Your task to perform on an android device: add a contact in the contacts app Image 0: 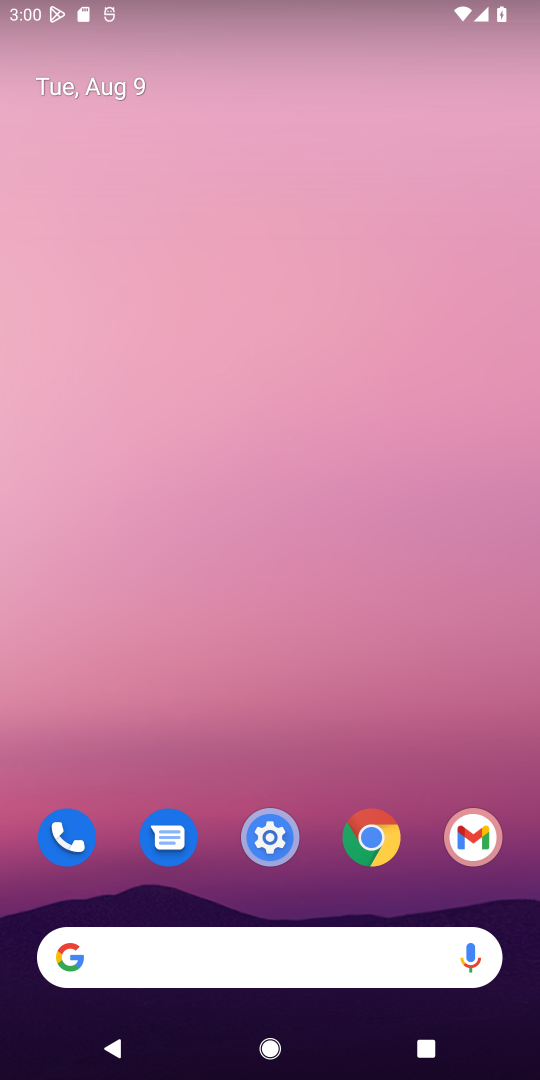
Step 0: drag from (236, 837) to (239, 187)
Your task to perform on an android device: add a contact in the contacts app Image 1: 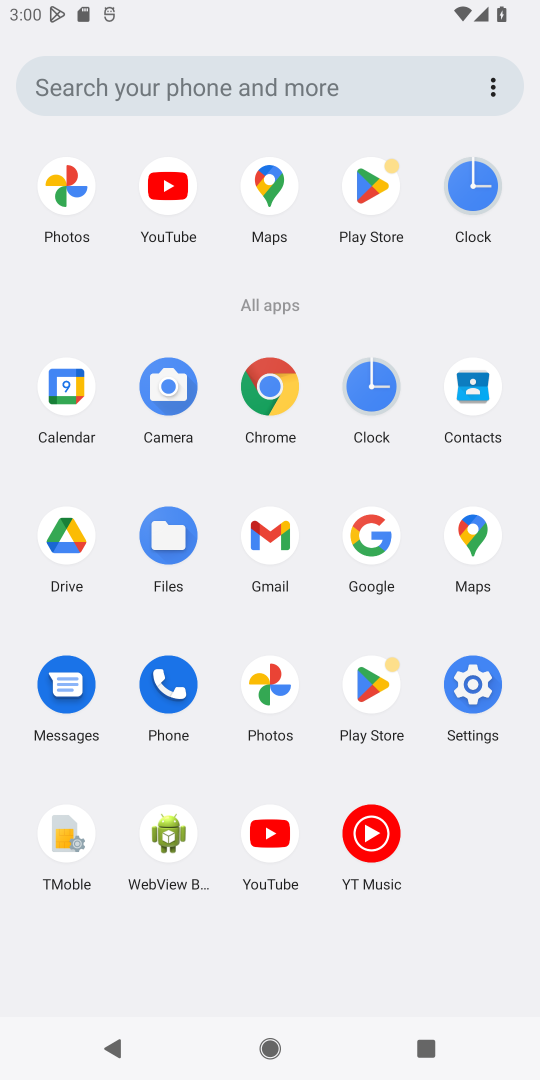
Step 1: click (155, 656)
Your task to perform on an android device: add a contact in the contacts app Image 2: 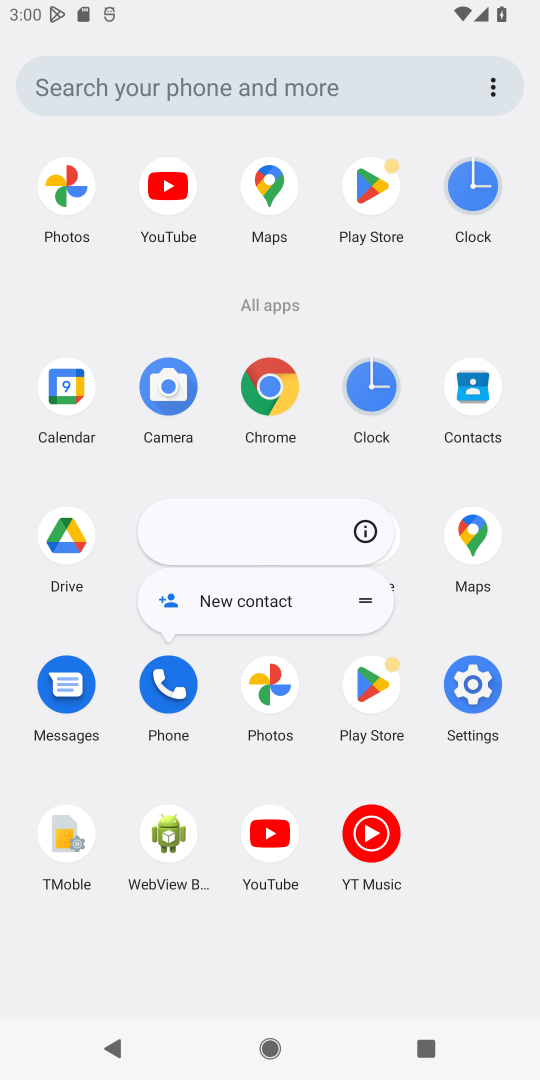
Step 2: click (152, 677)
Your task to perform on an android device: add a contact in the contacts app Image 3: 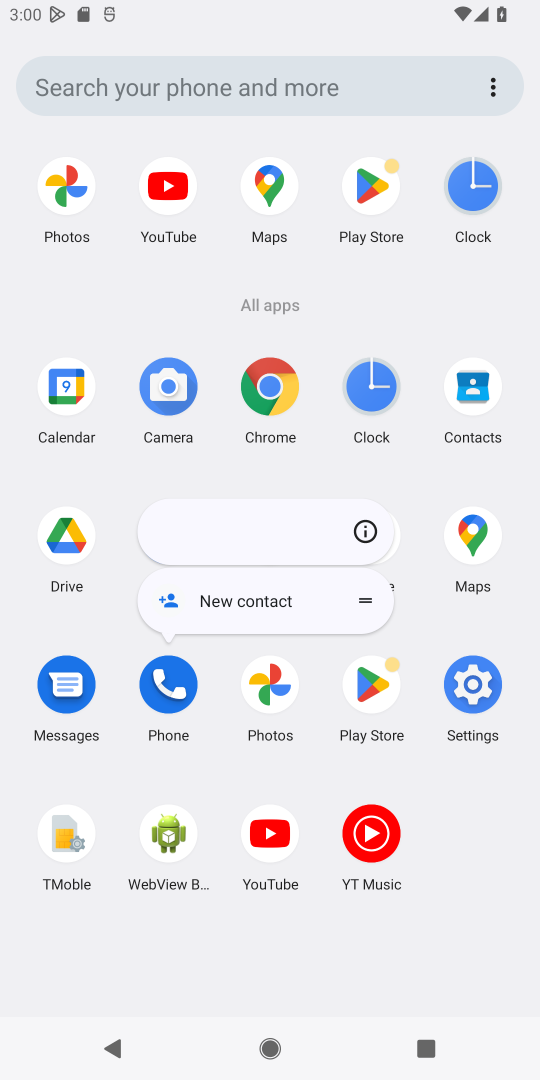
Step 3: click (154, 677)
Your task to perform on an android device: add a contact in the contacts app Image 4: 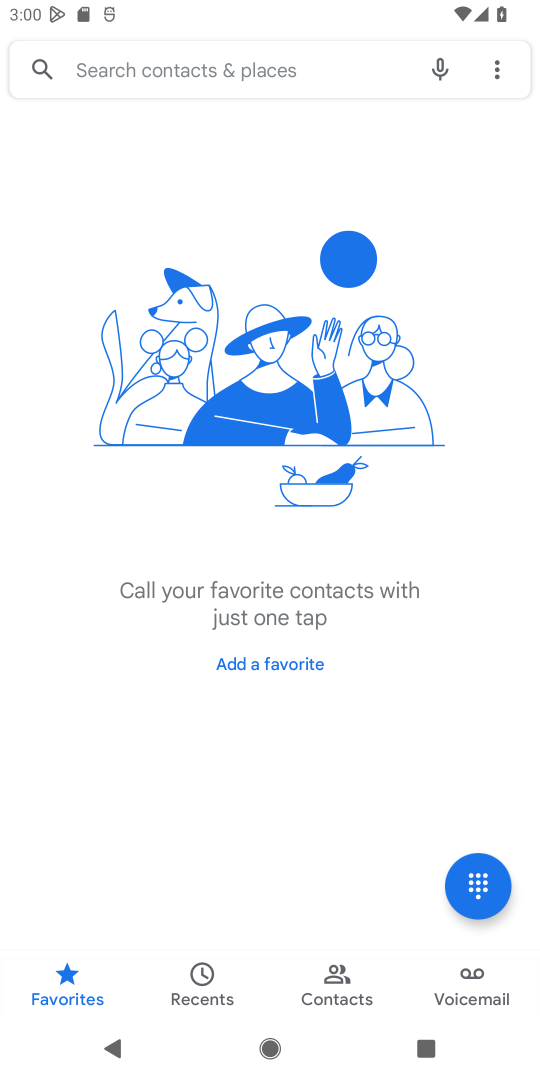
Step 4: click (458, 886)
Your task to perform on an android device: add a contact in the contacts app Image 5: 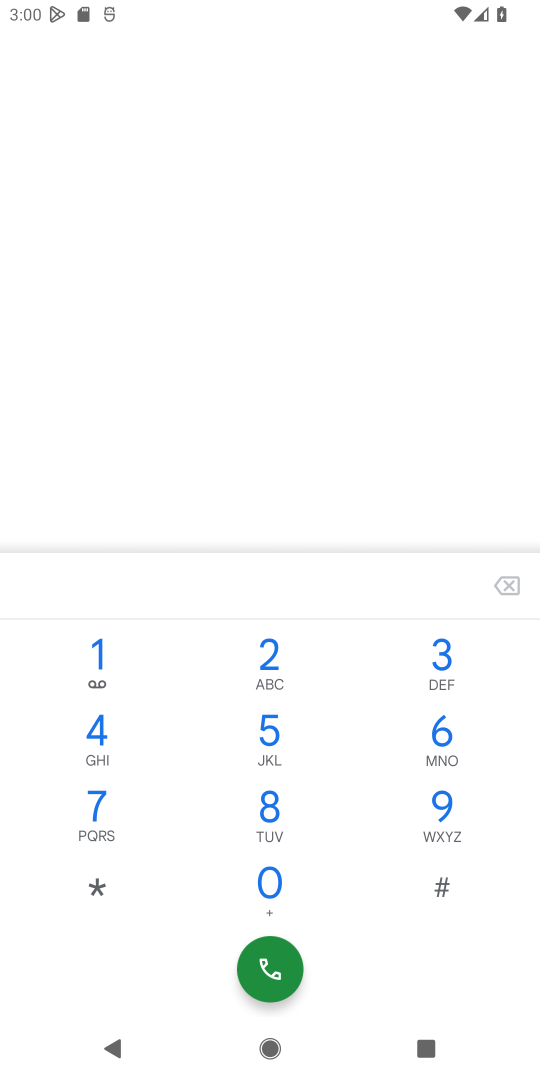
Step 5: click (102, 1044)
Your task to perform on an android device: add a contact in the contacts app Image 6: 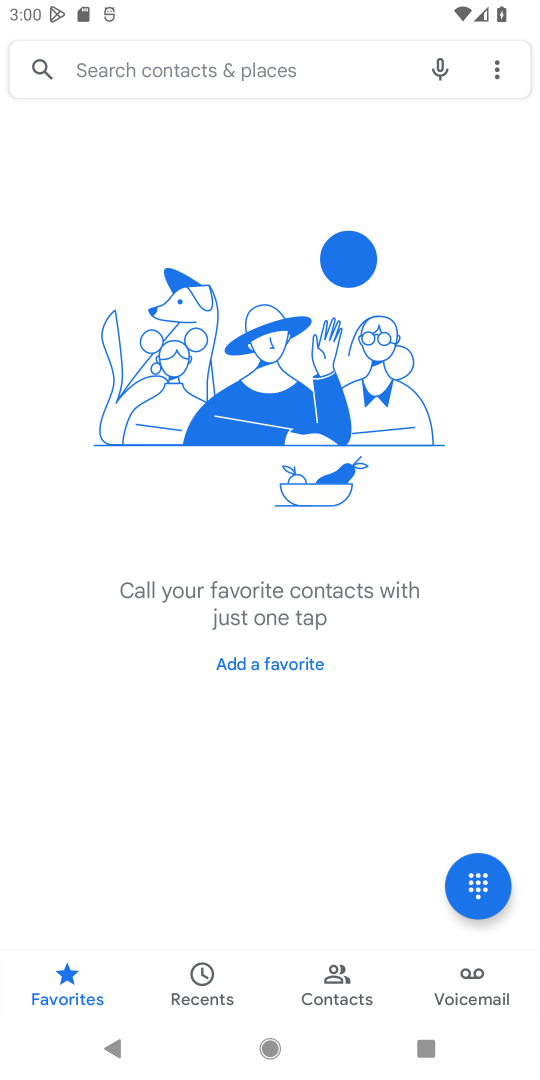
Step 6: click (277, 662)
Your task to perform on an android device: add a contact in the contacts app Image 7: 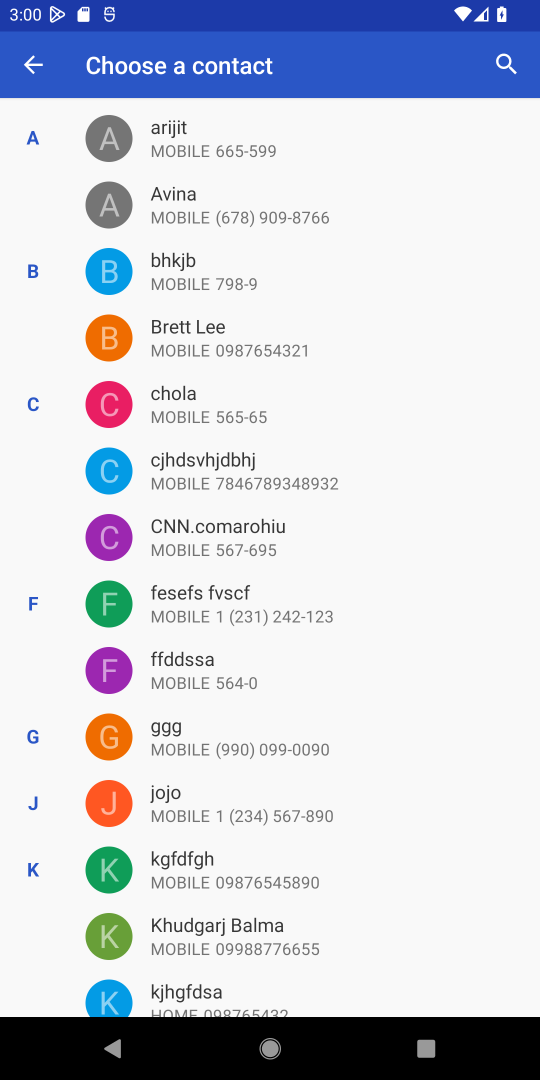
Step 7: drag from (272, 203) to (254, 832)
Your task to perform on an android device: add a contact in the contacts app Image 8: 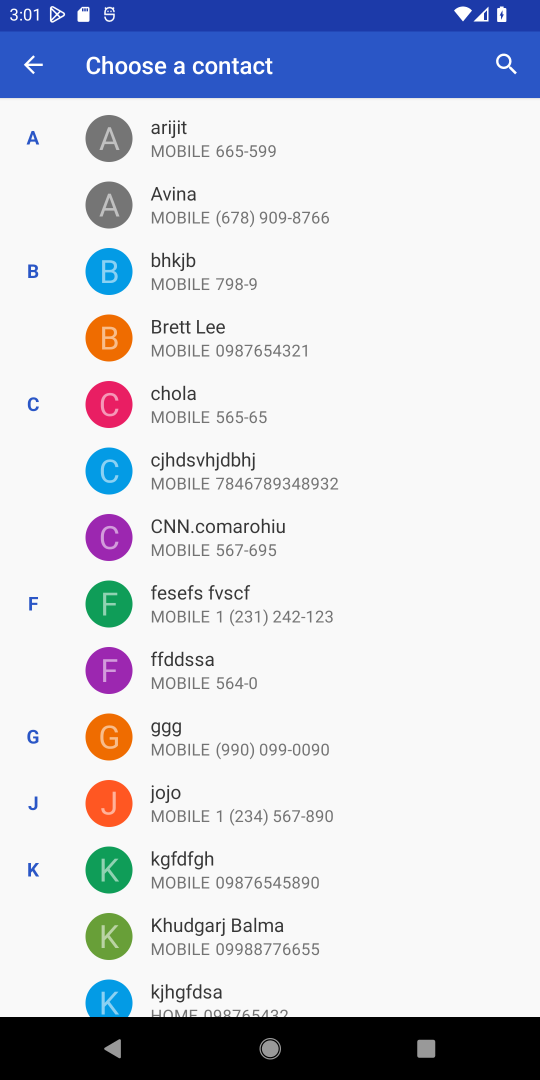
Step 8: click (26, 63)
Your task to perform on an android device: add a contact in the contacts app Image 9: 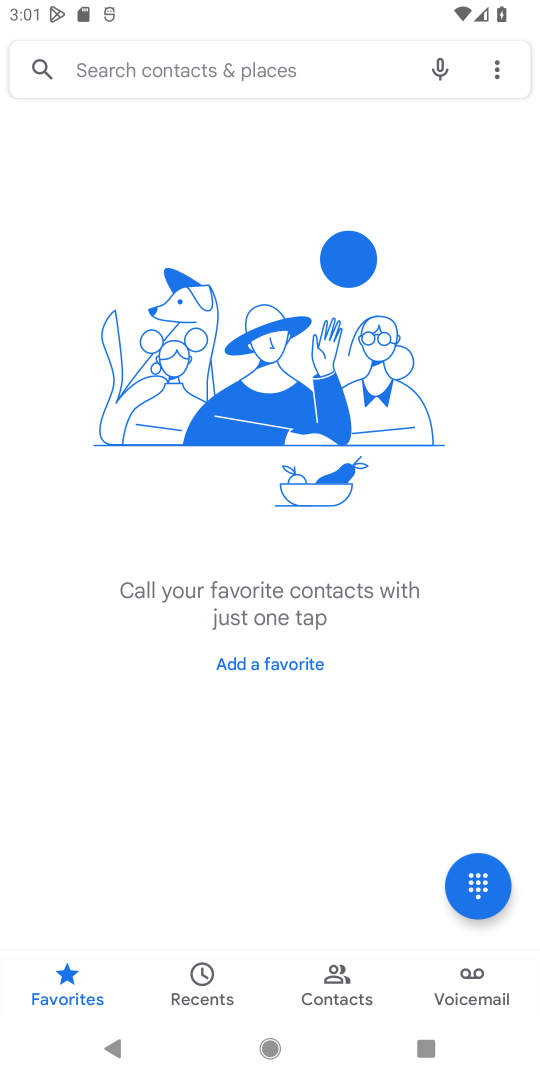
Step 9: click (318, 986)
Your task to perform on an android device: add a contact in the contacts app Image 10: 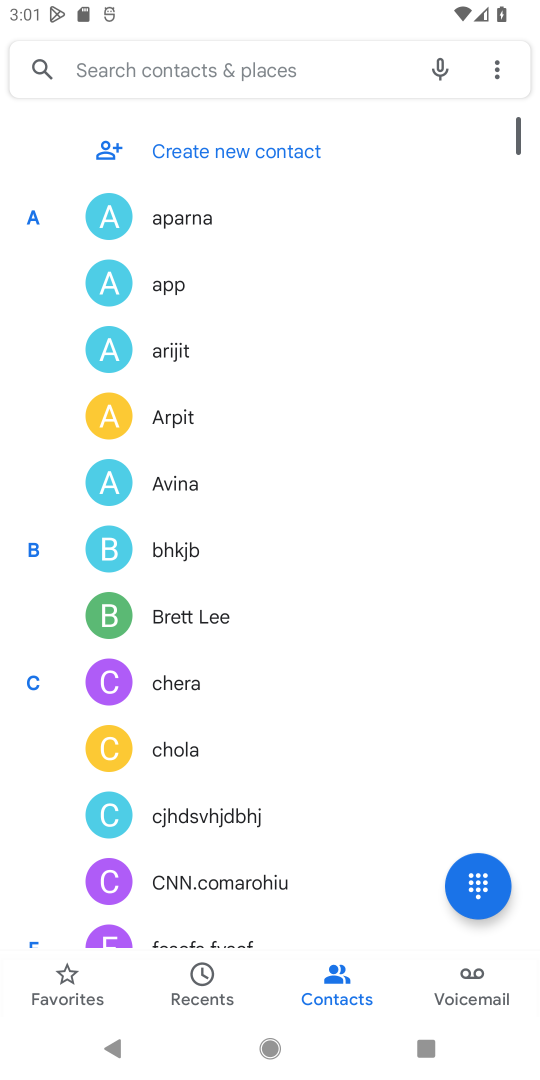
Step 10: click (220, 145)
Your task to perform on an android device: add a contact in the contacts app Image 11: 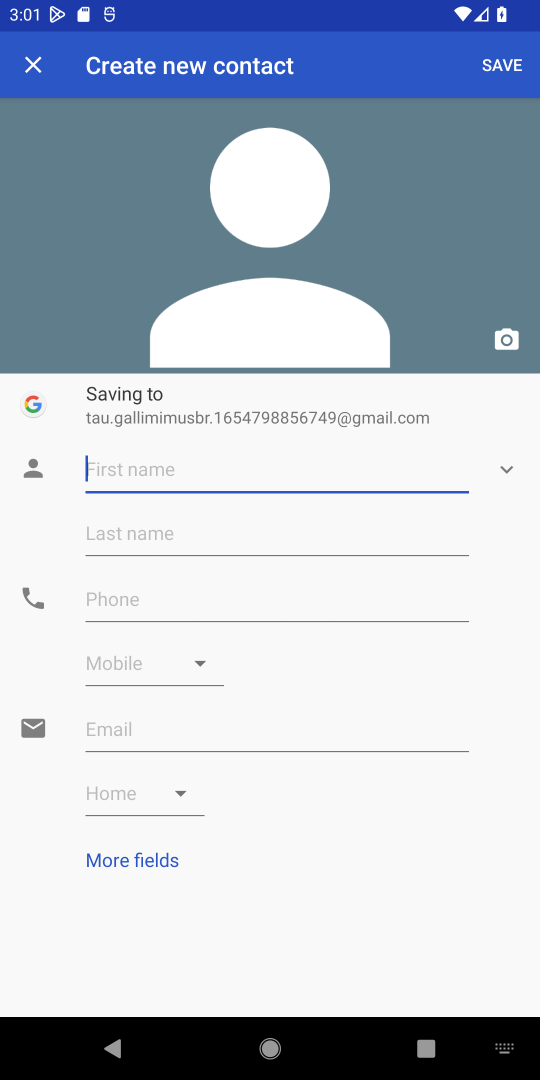
Step 11: type "hghghghghghg"
Your task to perform on an android device: add a contact in the contacts app Image 12: 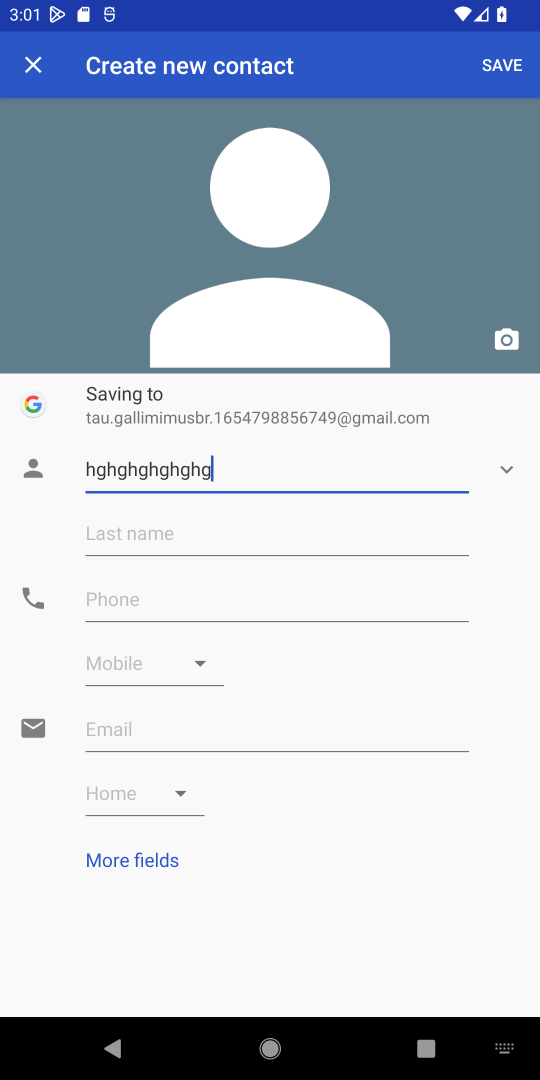
Step 12: click (162, 566)
Your task to perform on an android device: add a contact in the contacts app Image 13: 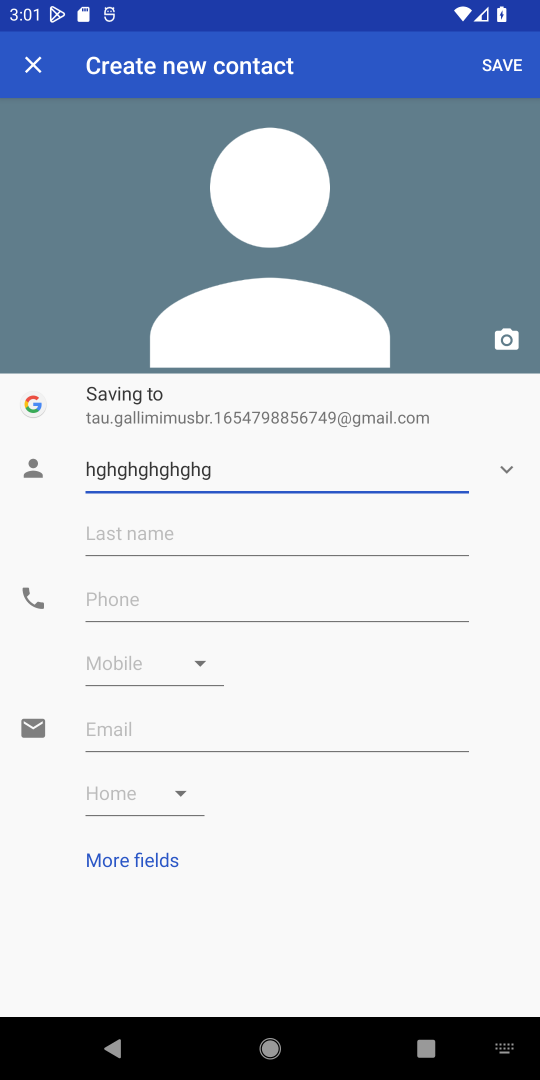
Step 13: type "8877787878 "
Your task to perform on an android device: add a contact in the contacts app Image 14: 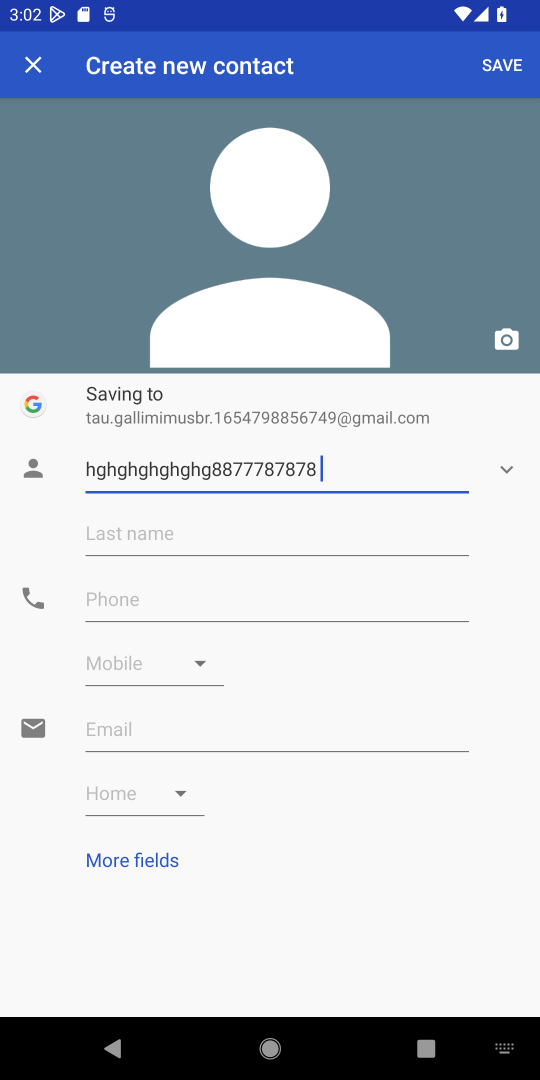
Step 14: click (176, 600)
Your task to perform on an android device: add a contact in the contacts app Image 15: 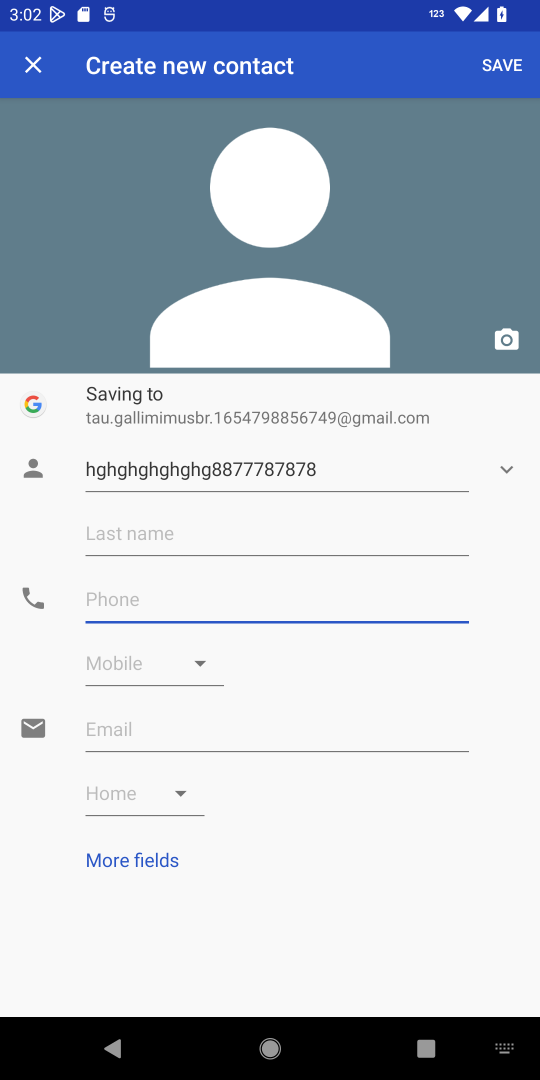
Step 15: type "99889898"
Your task to perform on an android device: add a contact in the contacts app Image 16: 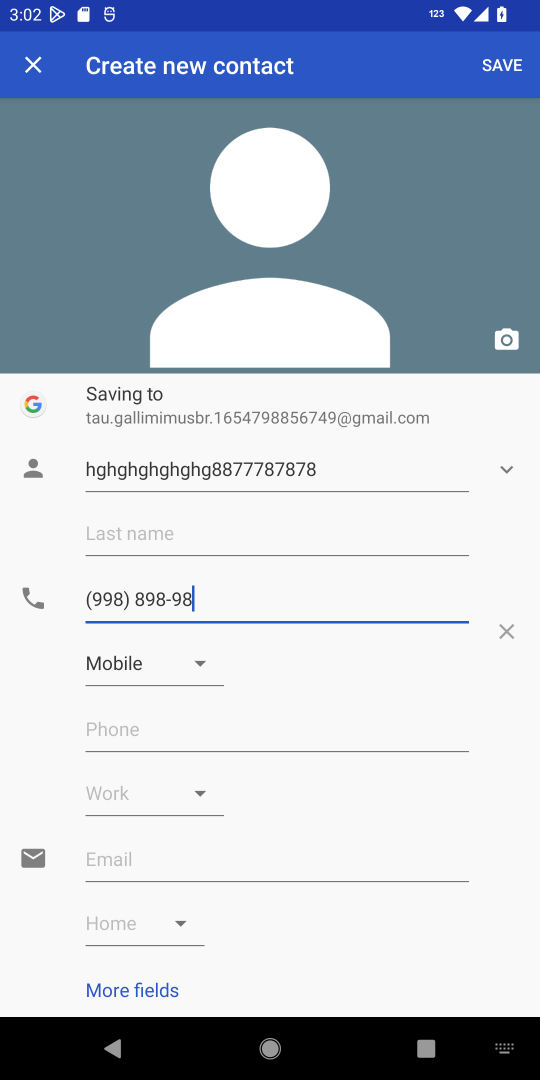
Step 16: click (523, 57)
Your task to perform on an android device: add a contact in the contacts app Image 17: 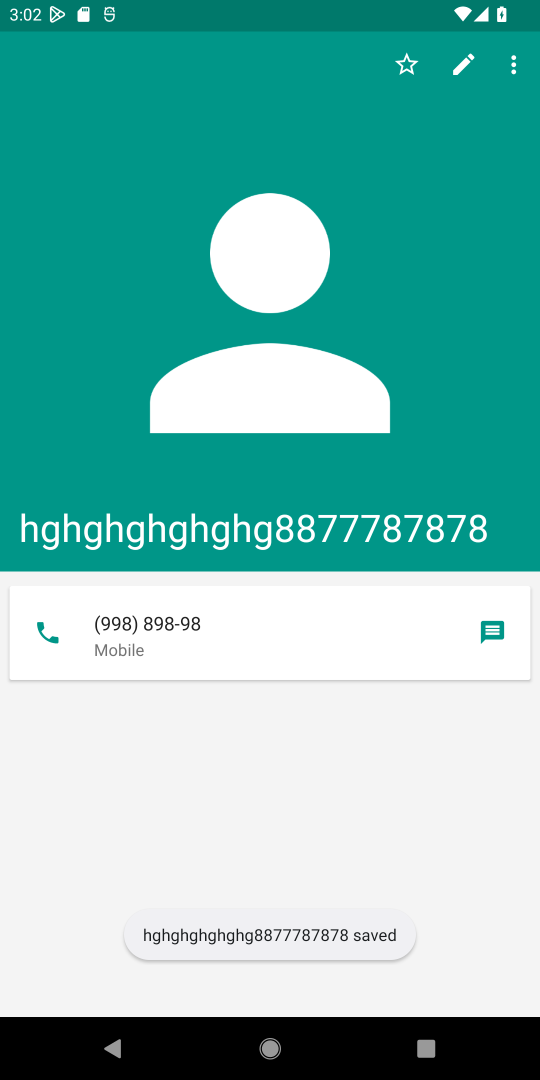
Step 17: task complete